Your task to perform on an android device: manage bookmarks in the chrome app Image 0: 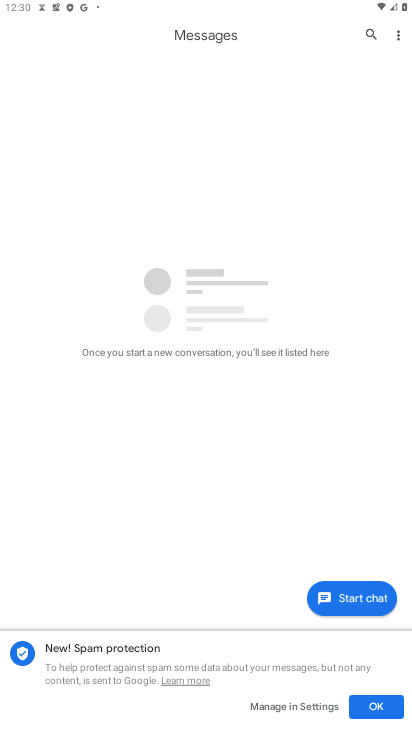
Step 0: press home button
Your task to perform on an android device: manage bookmarks in the chrome app Image 1: 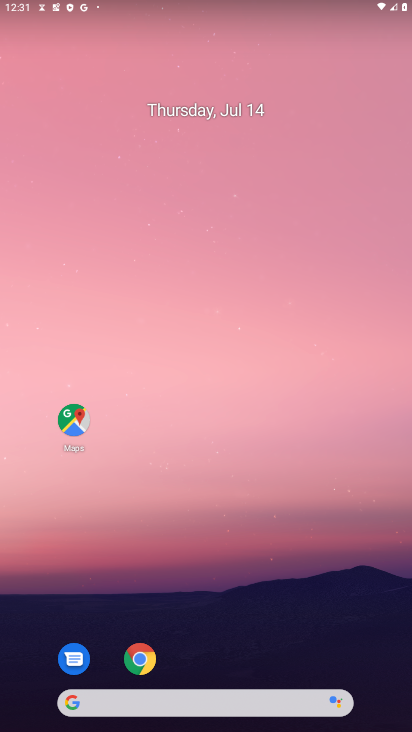
Step 1: click (69, 419)
Your task to perform on an android device: manage bookmarks in the chrome app Image 2: 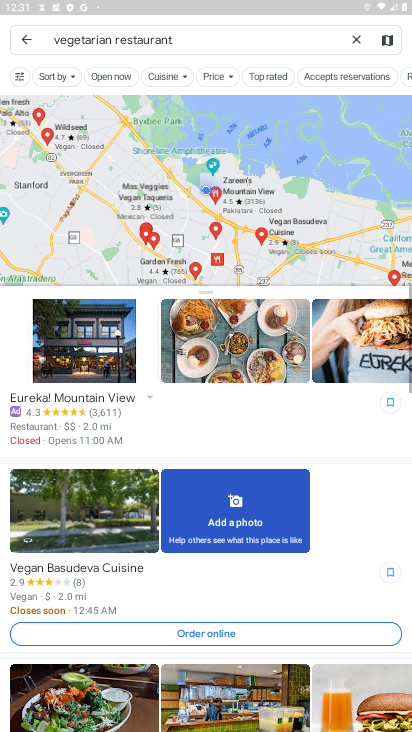
Step 2: press home button
Your task to perform on an android device: manage bookmarks in the chrome app Image 3: 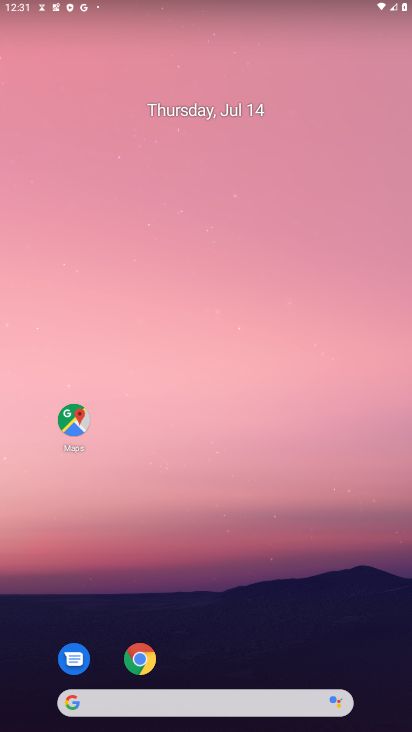
Step 3: click (147, 653)
Your task to perform on an android device: manage bookmarks in the chrome app Image 4: 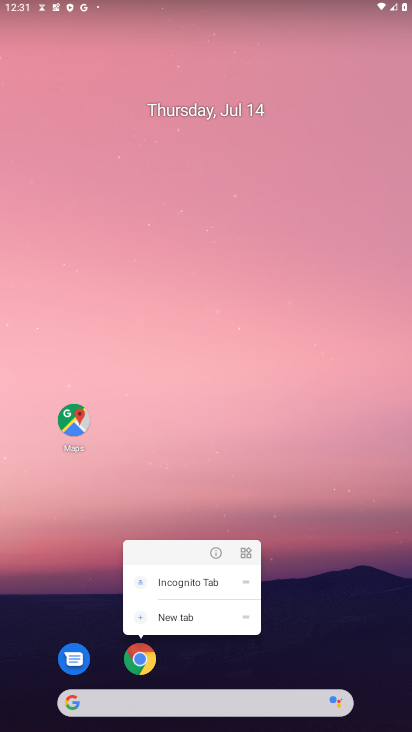
Step 4: click (148, 664)
Your task to perform on an android device: manage bookmarks in the chrome app Image 5: 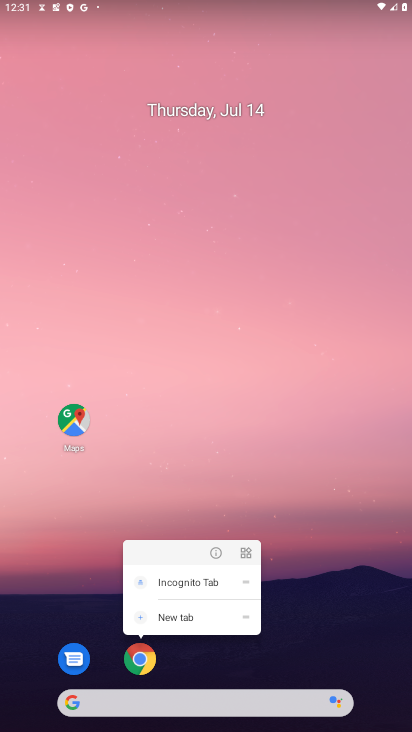
Step 5: click (159, 661)
Your task to perform on an android device: manage bookmarks in the chrome app Image 6: 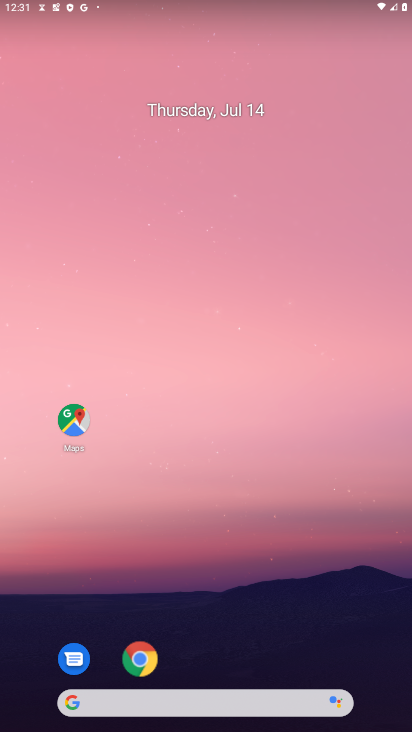
Step 6: click (155, 661)
Your task to perform on an android device: manage bookmarks in the chrome app Image 7: 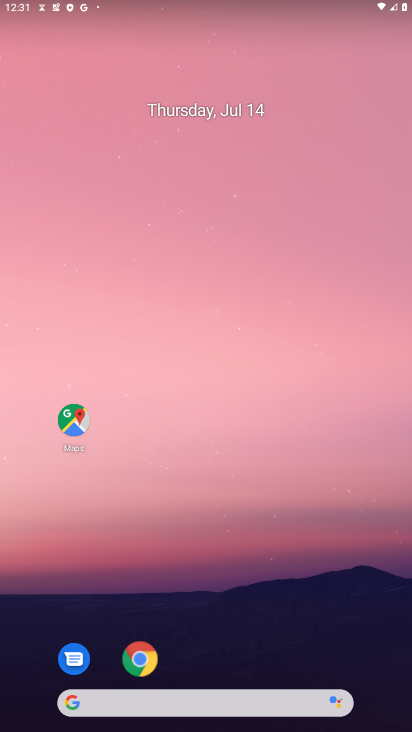
Step 7: click (138, 654)
Your task to perform on an android device: manage bookmarks in the chrome app Image 8: 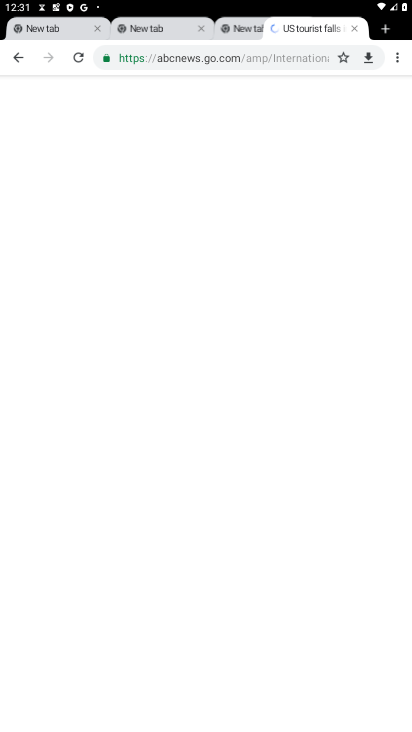
Step 8: click (398, 62)
Your task to perform on an android device: manage bookmarks in the chrome app Image 9: 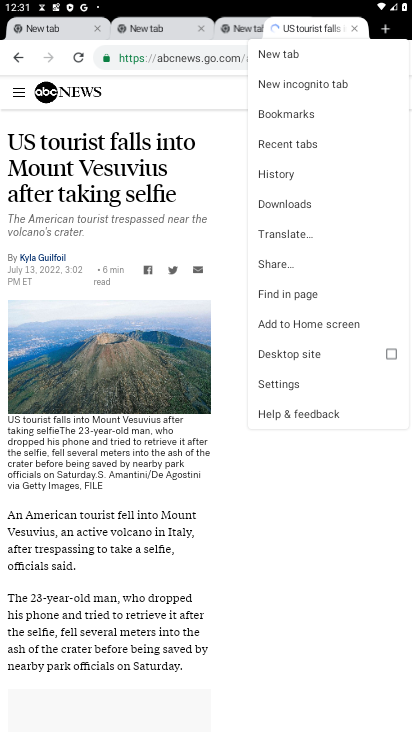
Step 9: click (301, 118)
Your task to perform on an android device: manage bookmarks in the chrome app Image 10: 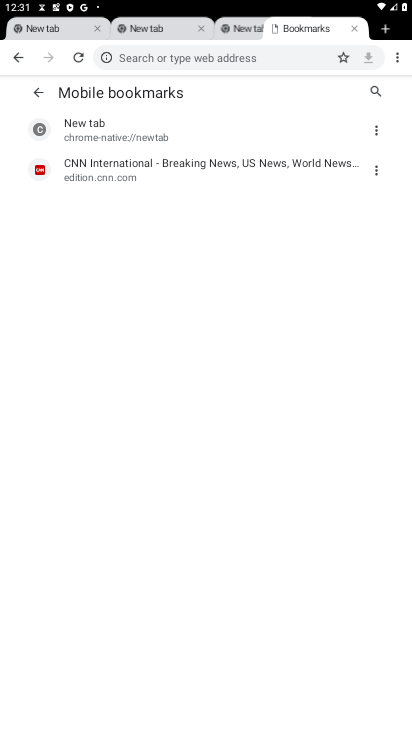
Step 10: task complete